Your task to perform on an android device: Clear the shopping cart on bestbuy. Add "corsair k70" to the cart on bestbuy, then select checkout. Image 0: 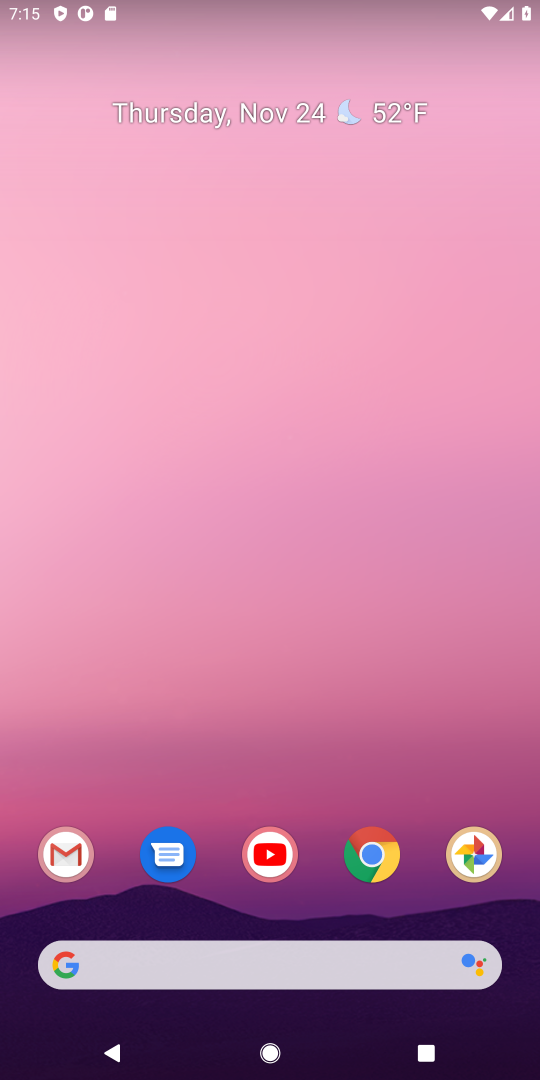
Step 0: click (374, 847)
Your task to perform on an android device: Clear the shopping cart on bestbuy. Add "corsair k70" to the cart on bestbuy, then select checkout. Image 1: 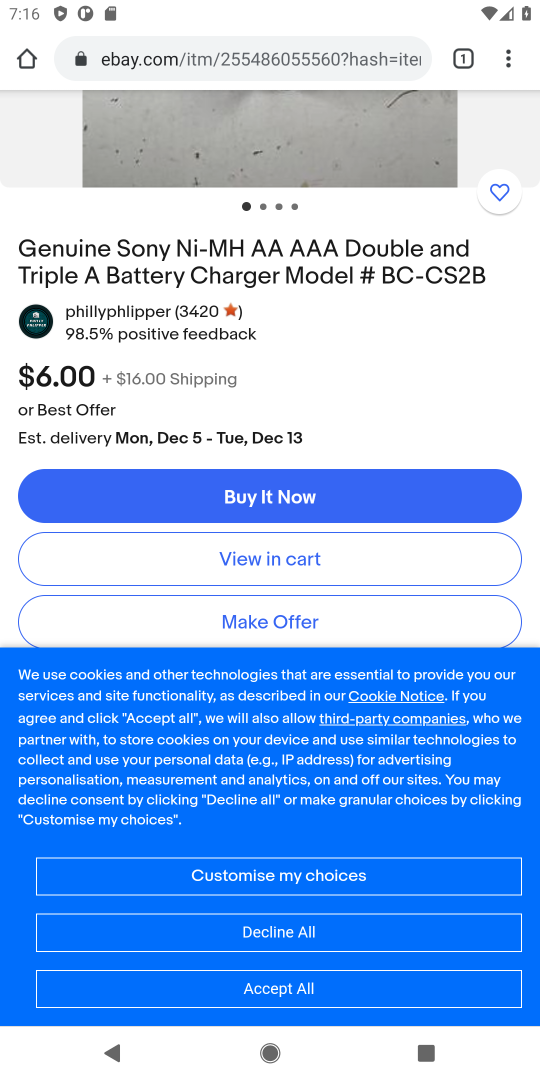
Step 1: click (240, 52)
Your task to perform on an android device: Clear the shopping cart on bestbuy. Add "corsair k70" to the cart on bestbuy, then select checkout. Image 2: 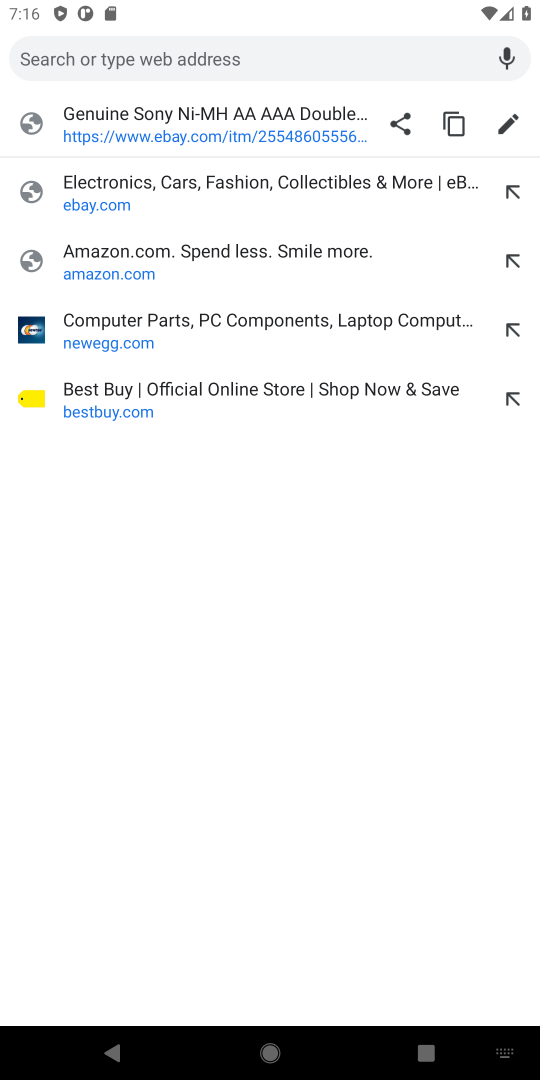
Step 2: click (84, 395)
Your task to perform on an android device: Clear the shopping cart on bestbuy. Add "corsair k70" to the cart on bestbuy, then select checkout. Image 3: 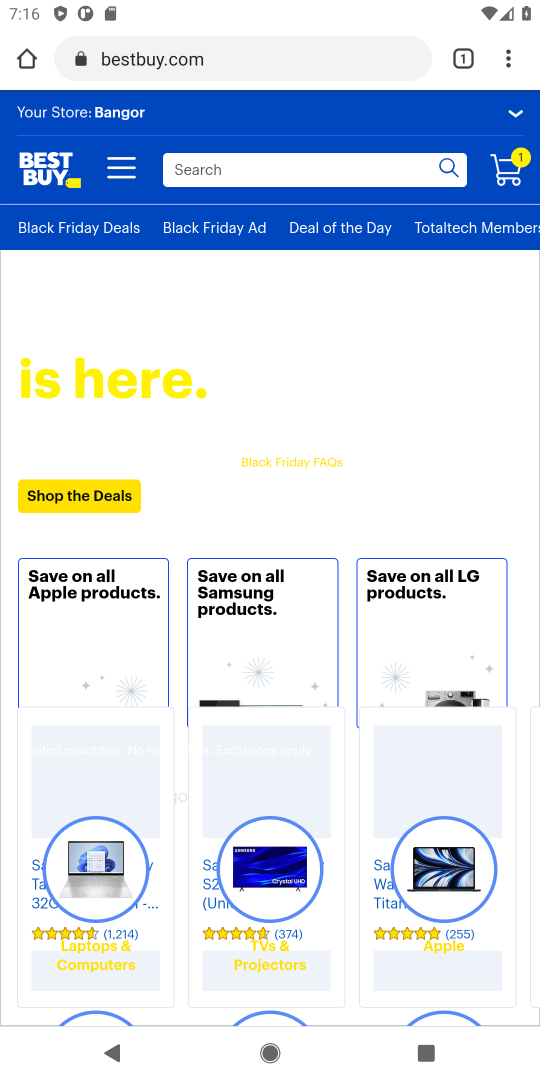
Step 3: click (503, 185)
Your task to perform on an android device: Clear the shopping cart on bestbuy. Add "corsair k70" to the cart on bestbuy, then select checkout. Image 4: 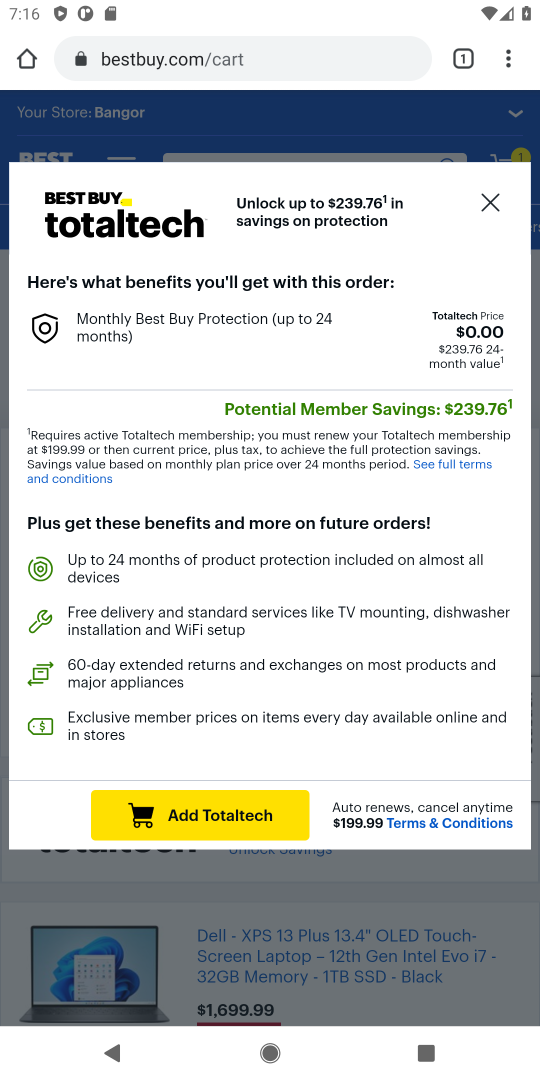
Step 4: click (493, 208)
Your task to perform on an android device: Clear the shopping cart on bestbuy. Add "corsair k70" to the cart on bestbuy, then select checkout. Image 5: 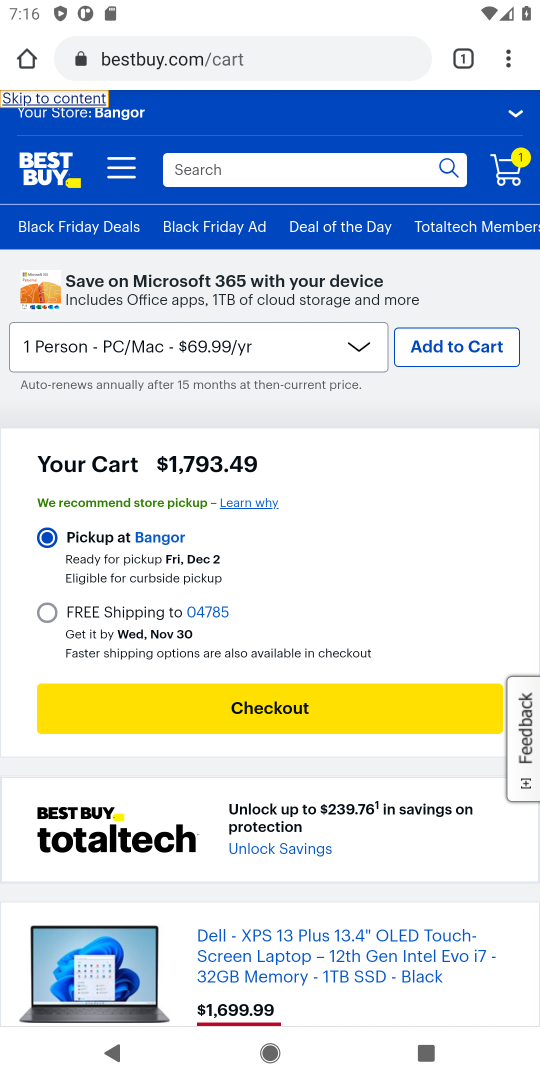
Step 5: drag from (315, 553) to (293, 238)
Your task to perform on an android device: Clear the shopping cart on bestbuy. Add "corsair k70" to the cart on bestbuy, then select checkout. Image 6: 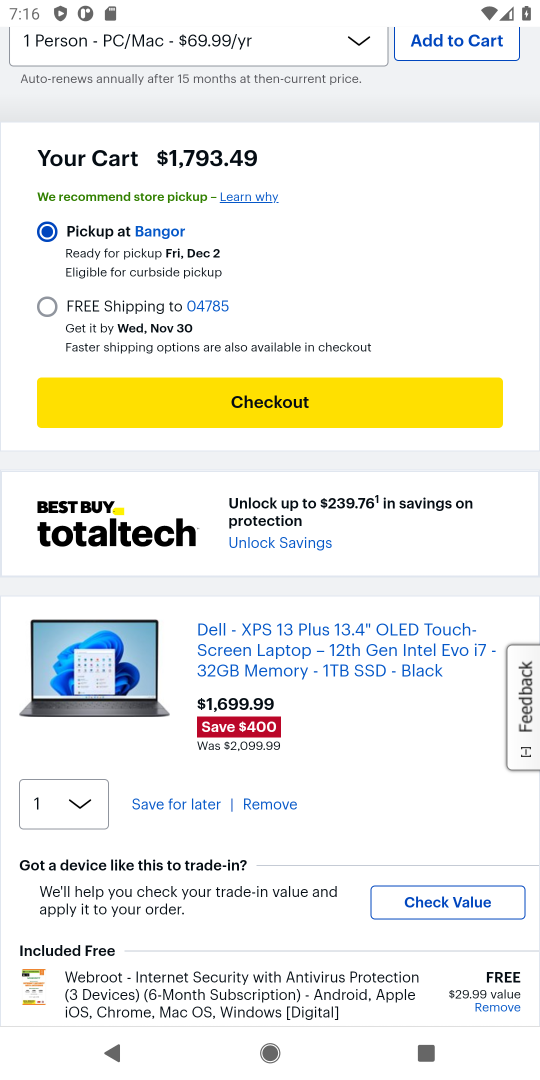
Step 6: click (265, 810)
Your task to perform on an android device: Clear the shopping cart on bestbuy. Add "corsair k70" to the cart on bestbuy, then select checkout. Image 7: 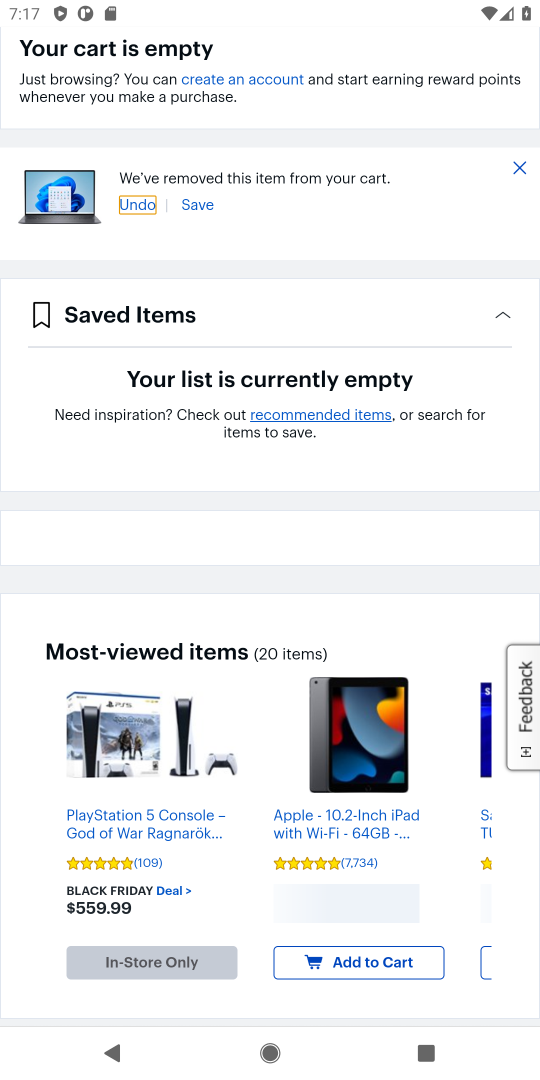
Step 7: drag from (295, 327) to (263, 576)
Your task to perform on an android device: Clear the shopping cart on bestbuy. Add "corsair k70" to the cart on bestbuy, then select checkout. Image 8: 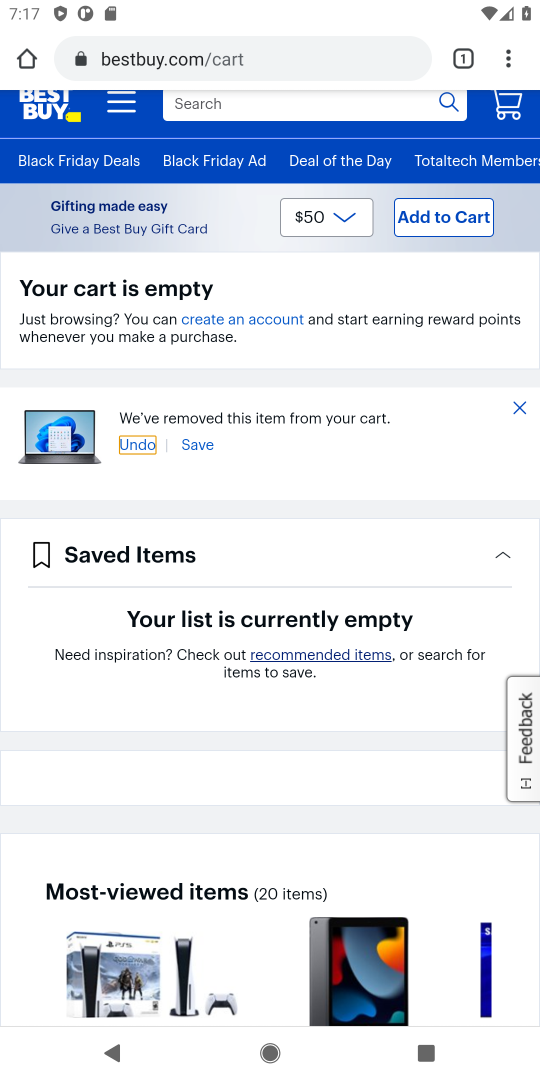
Step 8: click (223, 111)
Your task to perform on an android device: Clear the shopping cart on bestbuy. Add "corsair k70" to the cart on bestbuy, then select checkout. Image 9: 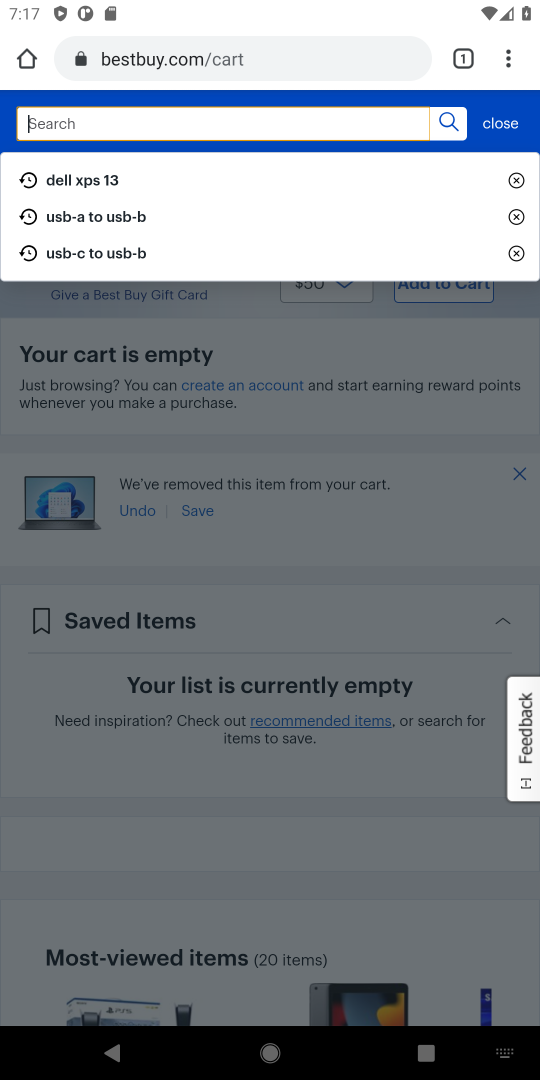
Step 9: type "corsair k70"
Your task to perform on an android device: Clear the shopping cart on bestbuy. Add "corsair k70" to the cart on bestbuy, then select checkout. Image 10: 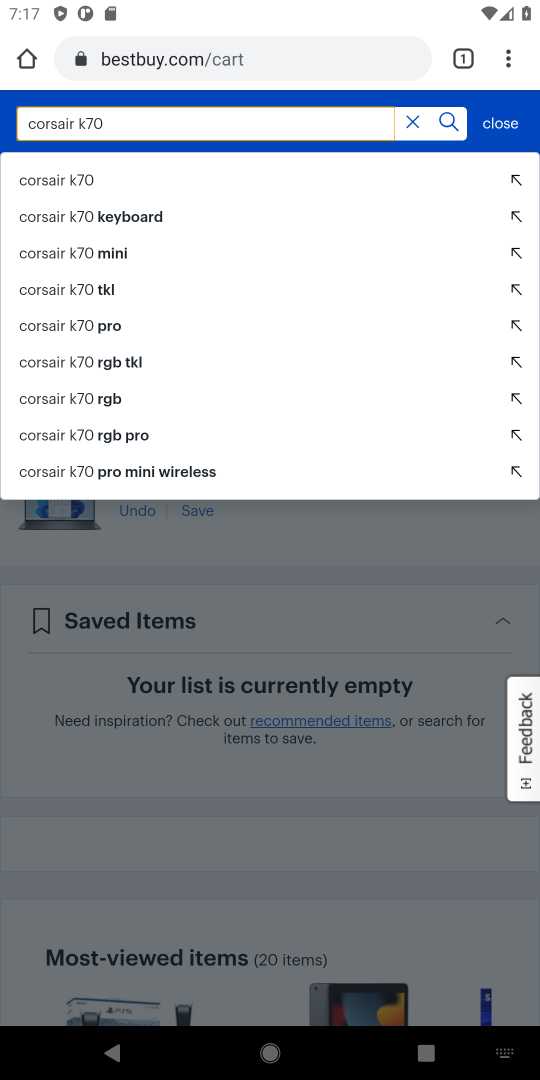
Step 10: click (49, 180)
Your task to perform on an android device: Clear the shopping cart on bestbuy. Add "corsair k70" to the cart on bestbuy, then select checkout. Image 11: 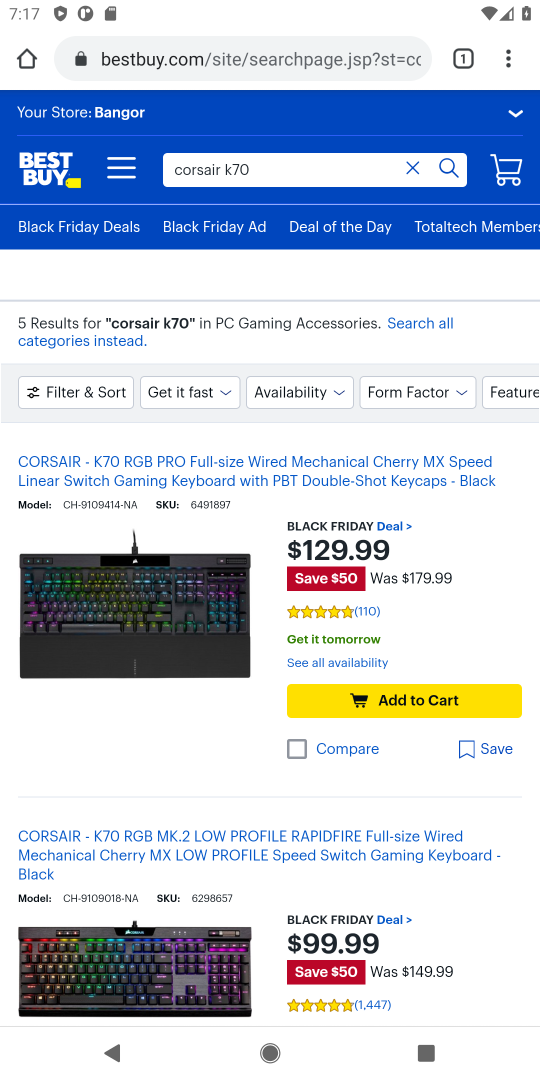
Step 11: click (377, 694)
Your task to perform on an android device: Clear the shopping cart on bestbuy. Add "corsair k70" to the cart on bestbuy, then select checkout. Image 12: 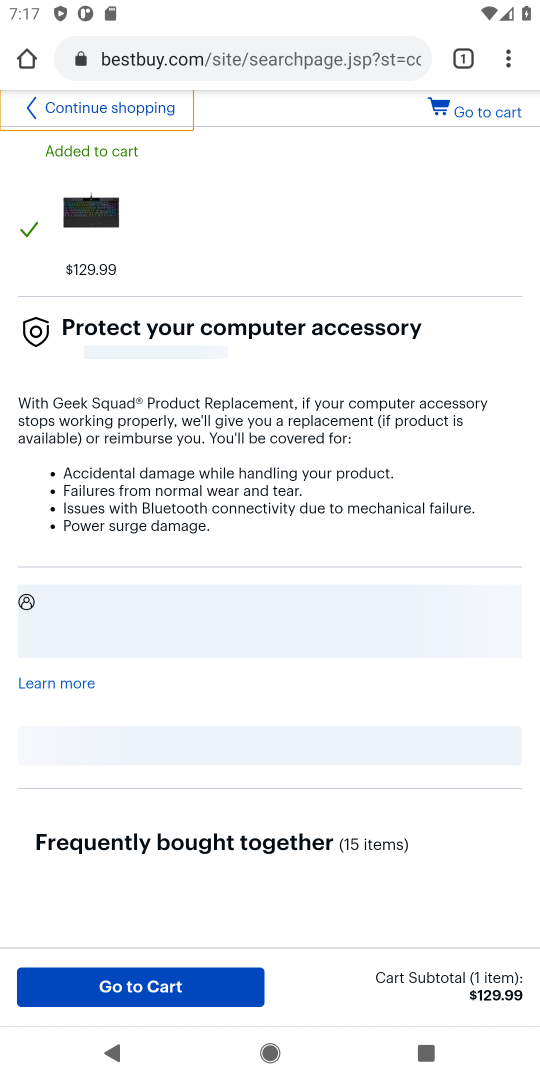
Step 12: click (490, 114)
Your task to perform on an android device: Clear the shopping cart on bestbuy. Add "corsair k70" to the cart on bestbuy, then select checkout. Image 13: 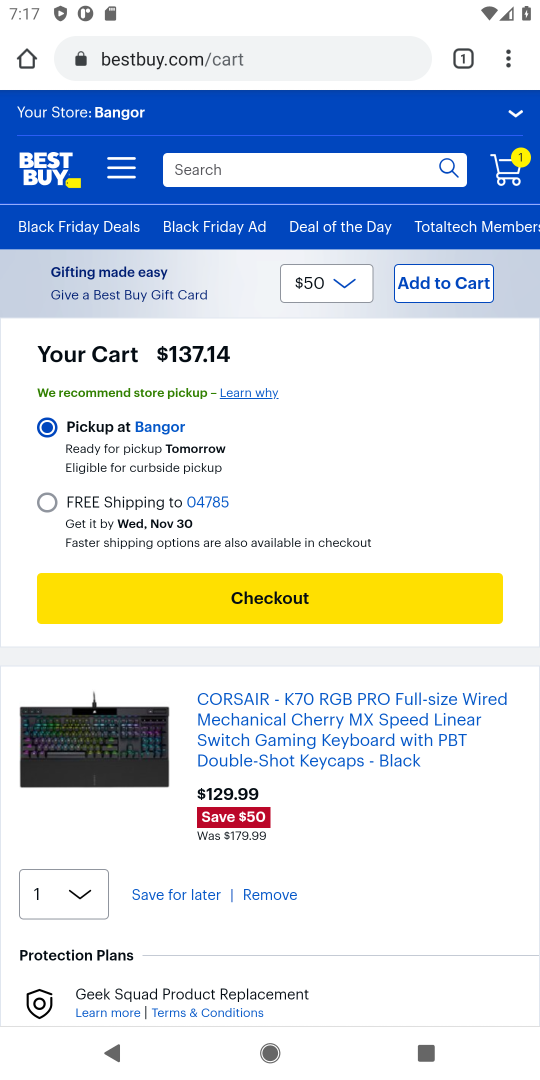
Step 13: click (272, 591)
Your task to perform on an android device: Clear the shopping cart on bestbuy. Add "corsair k70" to the cart on bestbuy, then select checkout. Image 14: 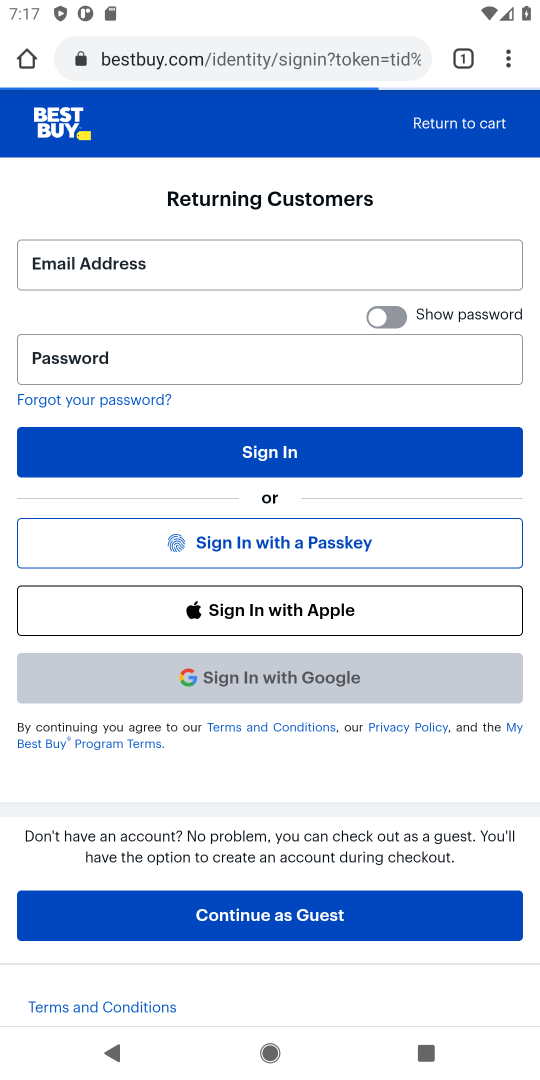
Step 14: task complete